Your task to perform on an android device: turn off smart reply in the gmail app Image 0: 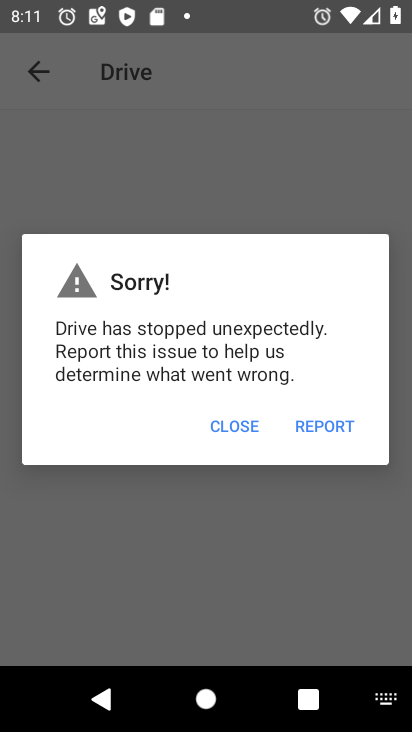
Step 0: press home button
Your task to perform on an android device: turn off smart reply in the gmail app Image 1: 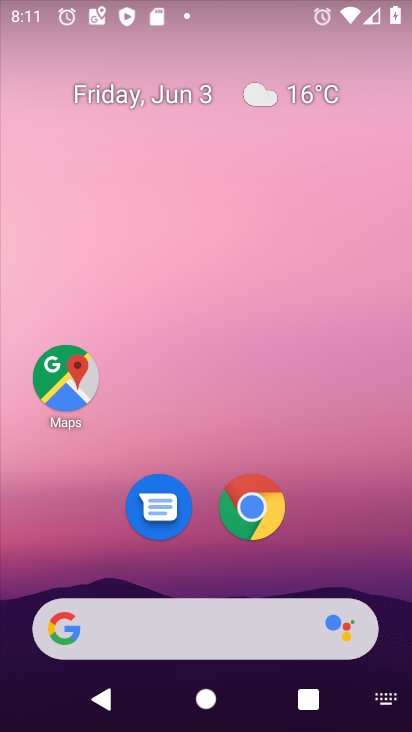
Step 1: drag from (271, 559) to (224, 0)
Your task to perform on an android device: turn off smart reply in the gmail app Image 2: 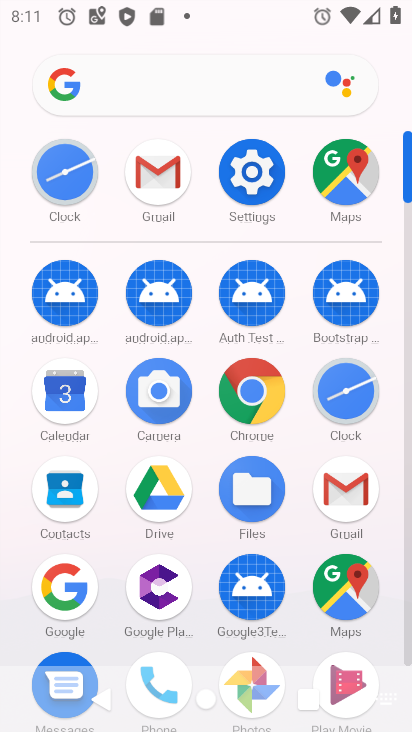
Step 2: click (161, 180)
Your task to perform on an android device: turn off smart reply in the gmail app Image 3: 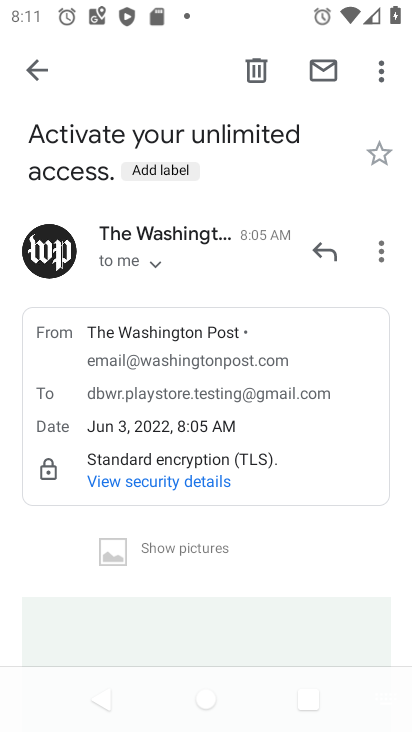
Step 3: click (45, 69)
Your task to perform on an android device: turn off smart reply in the gmail app Image 4: 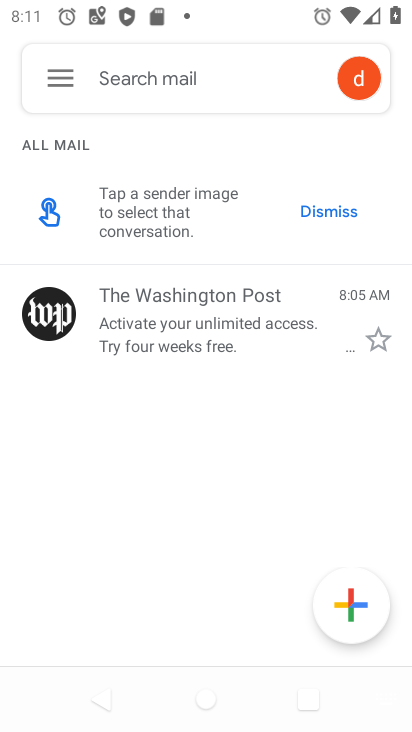
Step 4: drag from (189, 500) to (215, 165)
Your task to perform on an android device: turn off smart reply in the gmail app Image 5: 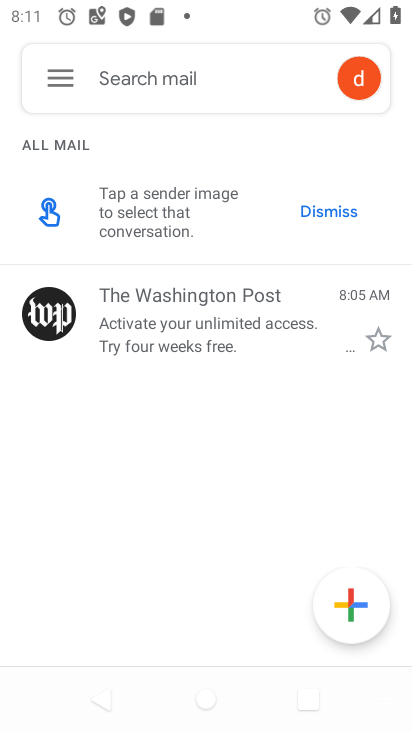
Step 5: click (50, 73)
Your task to perform on an android device: turn off smart reply in the gmail app Image 6: 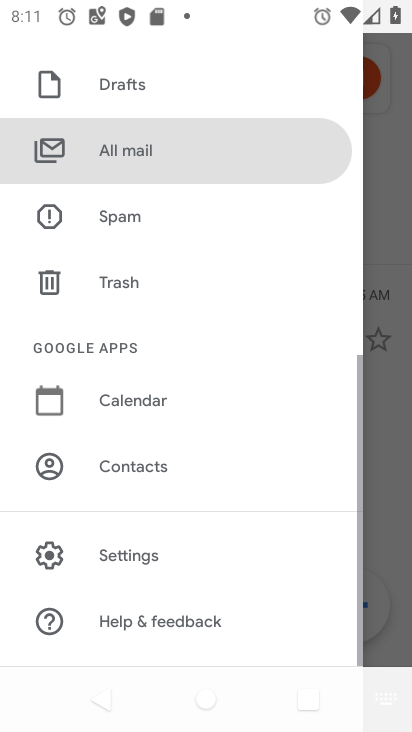
Step 6: drag from (202, 460) to (187, 139)
Your task to perform on an android device: turn off smart reply in the gmail app Image 7: 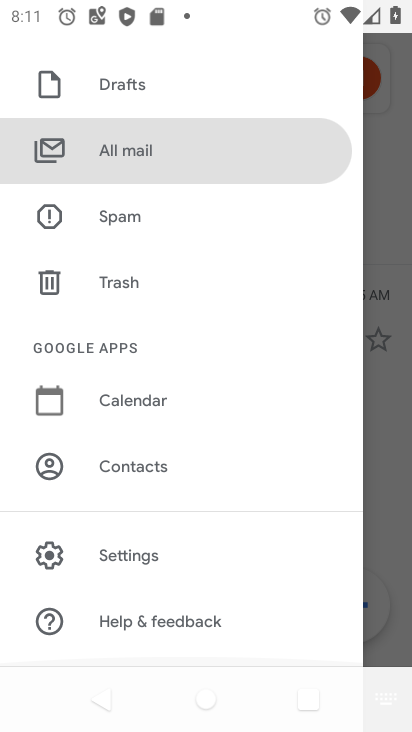
Step 7: click (170, 546)
Your task to perform on an android device: turn off smart reply in the gmail app Image 8: 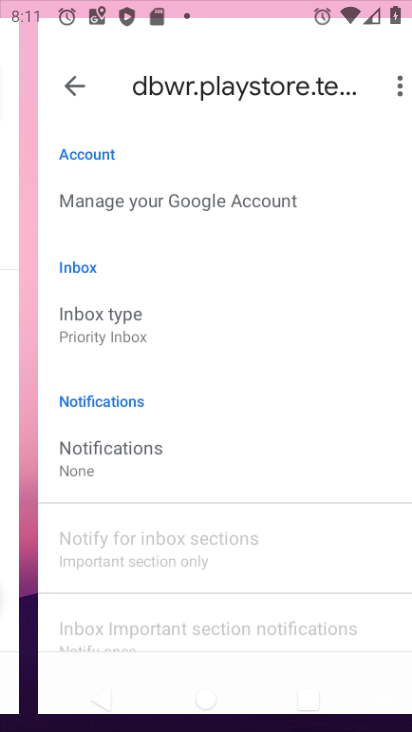
Step 8: task complete